Your task to perform on an android device: toggle improve location accuracy Image 0: 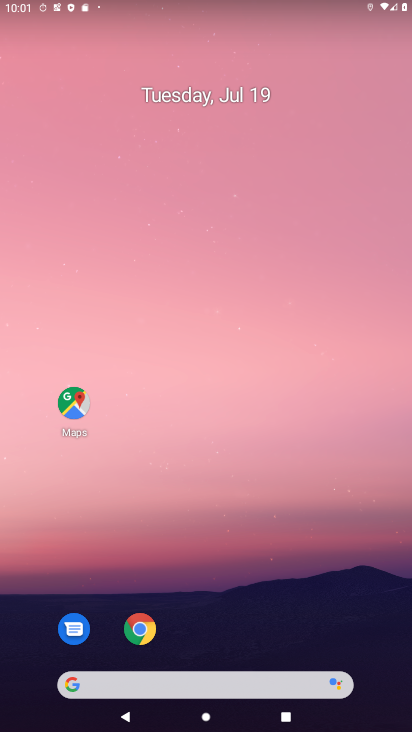
Step 0: drag from (236, 646) to (246, 4)
Your task to perform on an android device: toggle improve location accuracy Image 1: 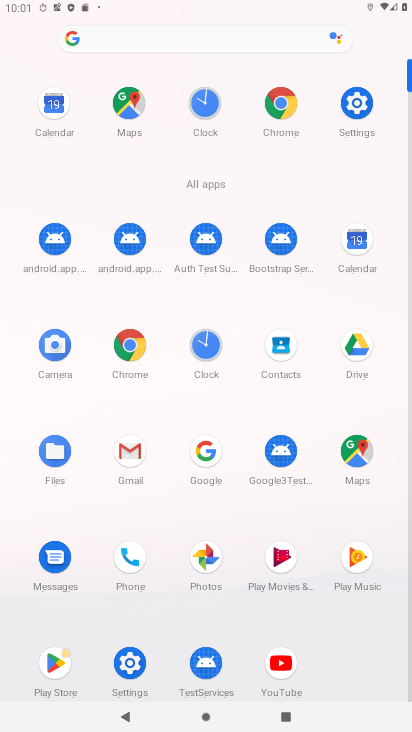
Step 1: click (129, 655)
Your task to perform on an android device: toggle improve location accuracy Image 2: 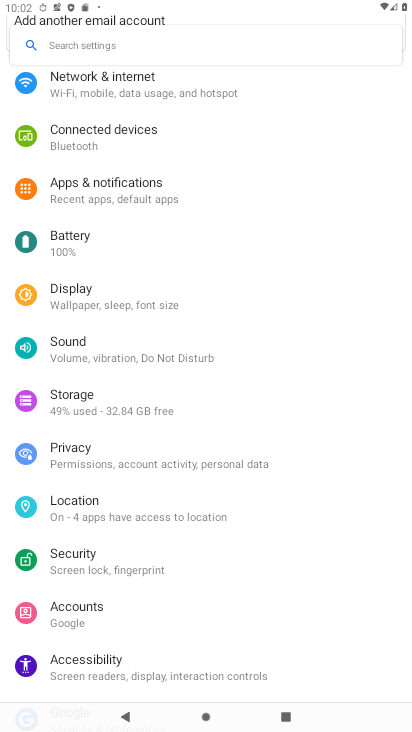
Step 2: click (105, 512)
Your task to perform on an android device: toggle improve location accuracy Image 3: 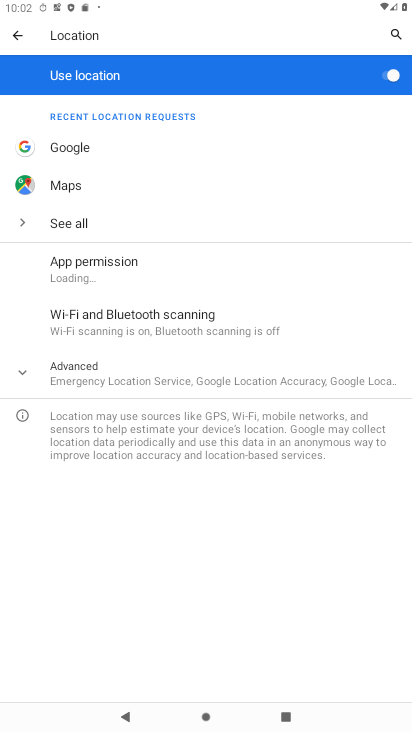
Step 3: click (131, 384)
Your task to perform on an android device: toggle improve location accuracy Image 4: 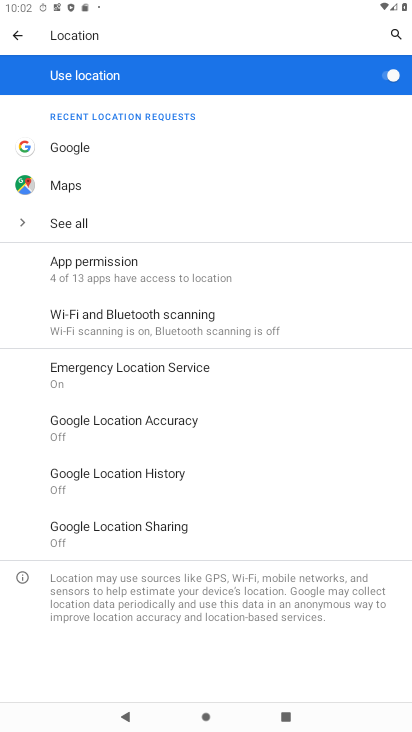
Step 4: click (145, 429)
Your task to perform on an android device: toggle improve location accuracy Image 5: 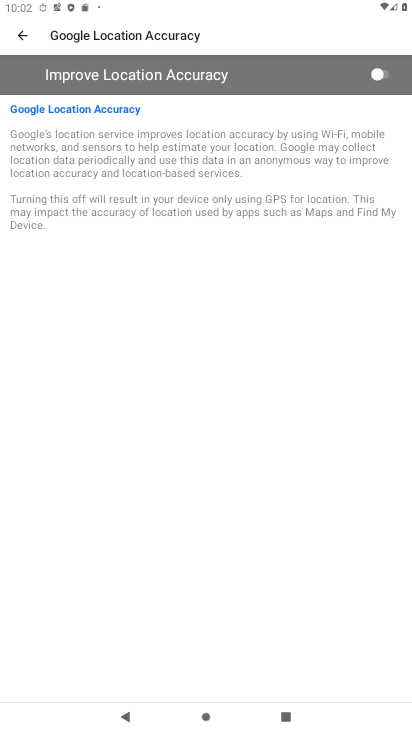
Step 5: click (397, 78)
Your task to perform on an android device: toggle improve location accuracy Image 6: 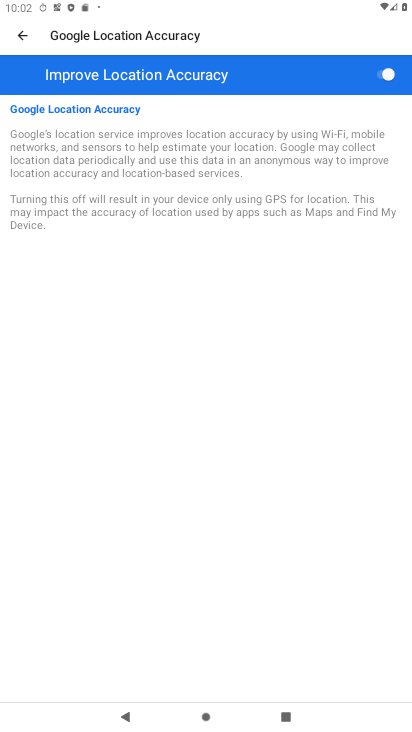
Step 6: task complete